Your task to perform on an android device: turn off improve location accuracy Image 0: 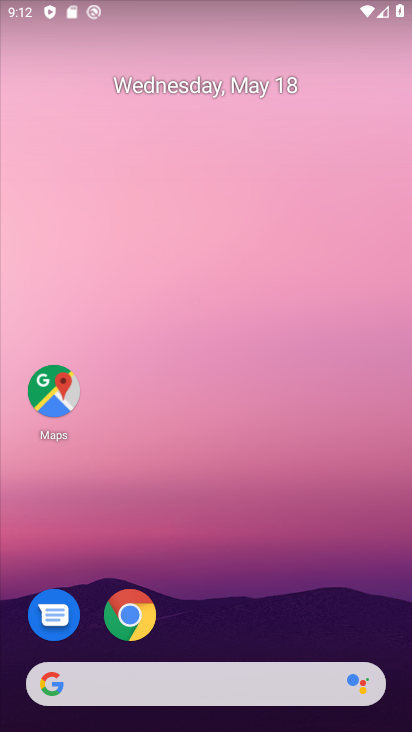
Step 0: drag from (225, 609) to (305, 63)
Your task to perform on an android device: turn off improve location accuracy Image 1: 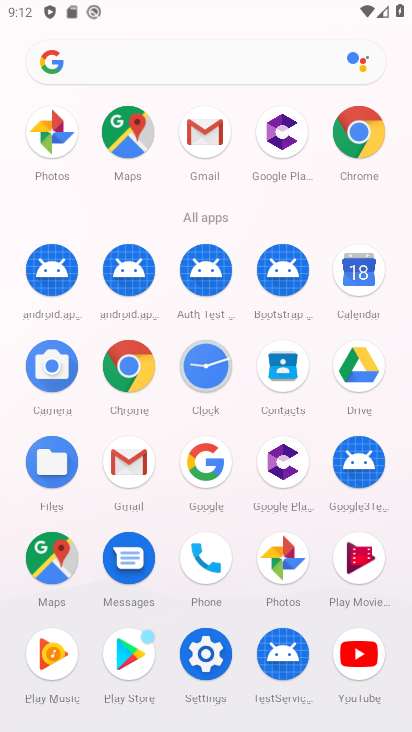
Step 1: click (192, 678)
Your task to perform on an android device: turn off improve location accuracy Image 2: 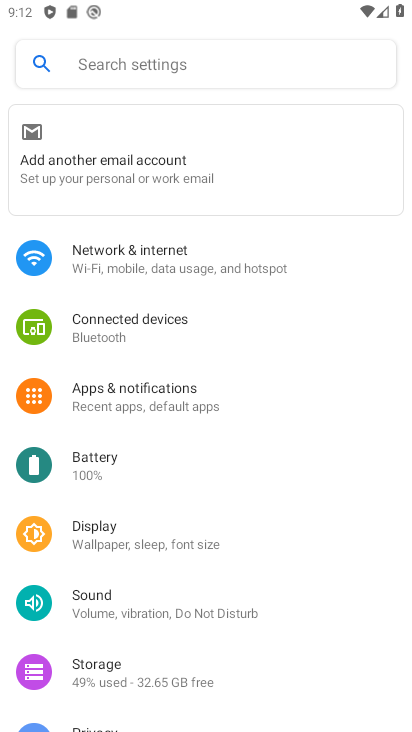
Step 2: drag from (178, 612) to (203, 219)
Your task to perform on an android device: turn off improve location accuracy Image 3: 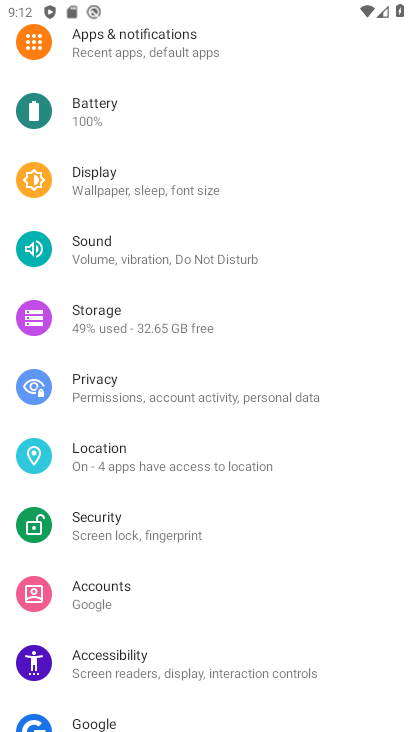
Step 3: click (133, 447)
Your task to perform on an android device: turn off improve location accuracy Image 4: 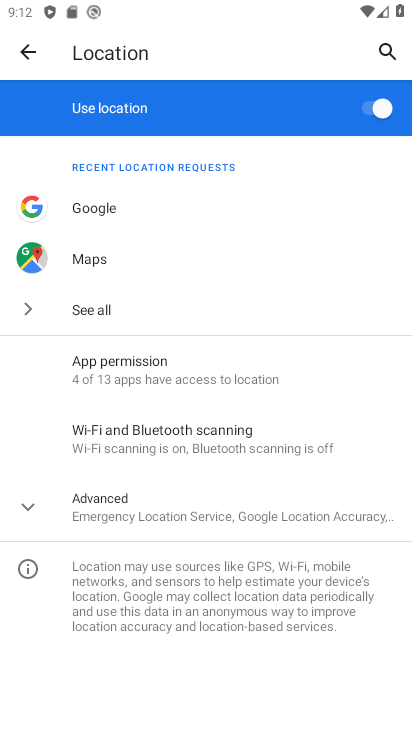
Step 4: click (145, 524)
Your task to perform on an android device: turn off improve location accuracy Image 5: 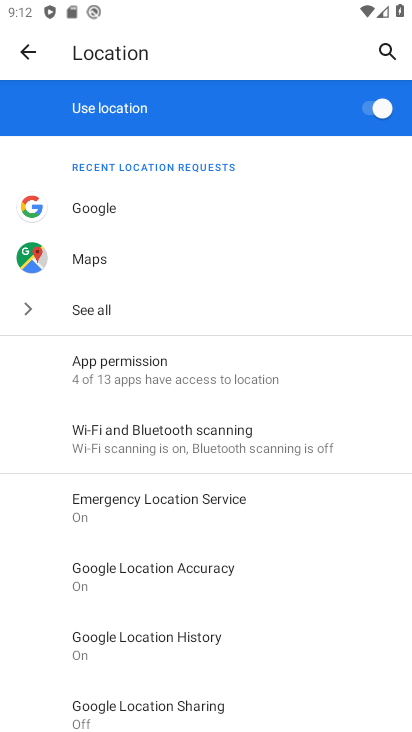
Step 5: click (144, 567)
Your task to perform on an android device: turn off improve location accuracy Image 6: 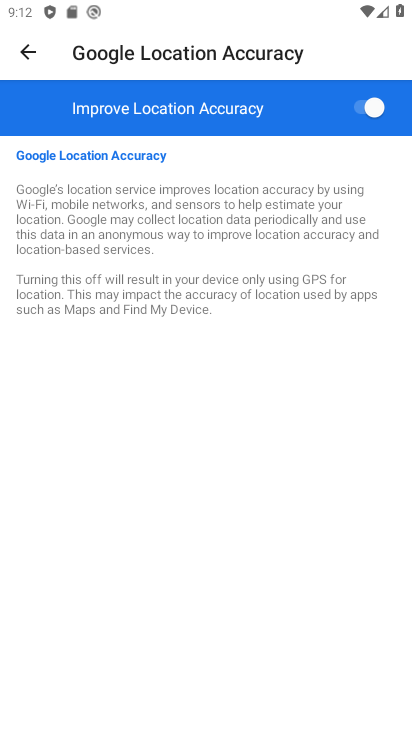
Step 6: click (371, 120)
Your task to perform on an android device: turn off improve location accuracy Image 7: 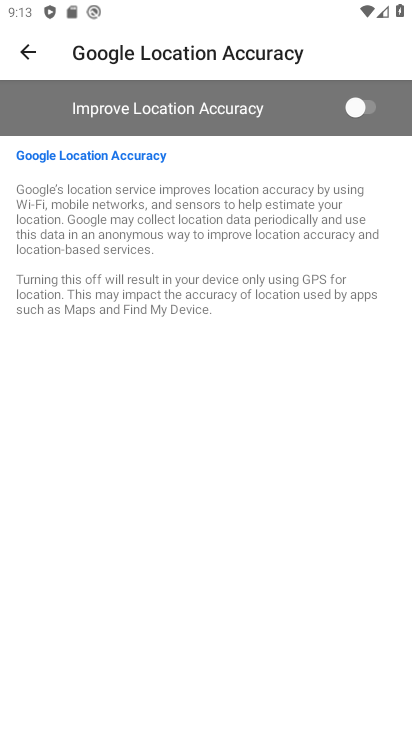
Step 7: task complete